Your task to perform on an android device: toggle data saver in the chrome app Image 0: 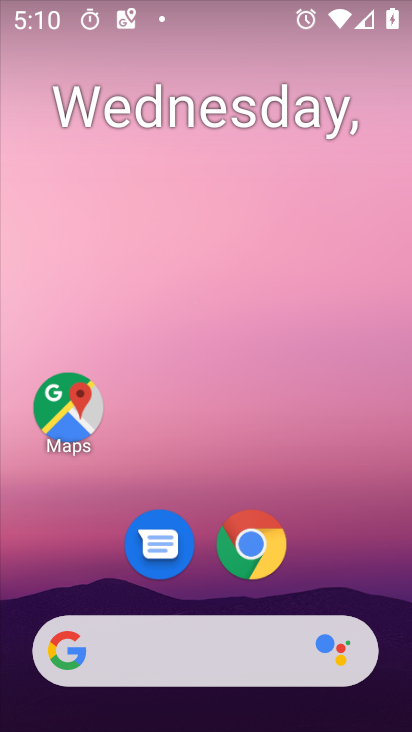
Step 0: click (267, 542)
Your task to perform on an android device: toggle data saver in the chrome app Image 1: 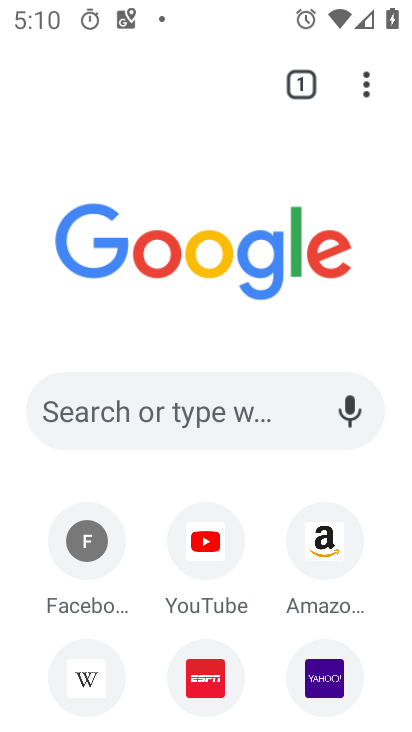
Step 1: click (362, 91)
Your task to perform on an android device: toggle data saver in the chrome app Image 2: 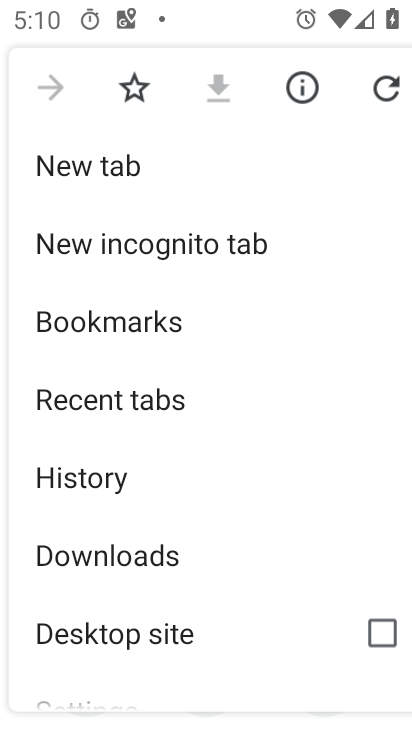
Step 2: drag from (181, 653) to (140, 300)
Your task to perform on an android device: toggle data saver in the chrome app Image 3: 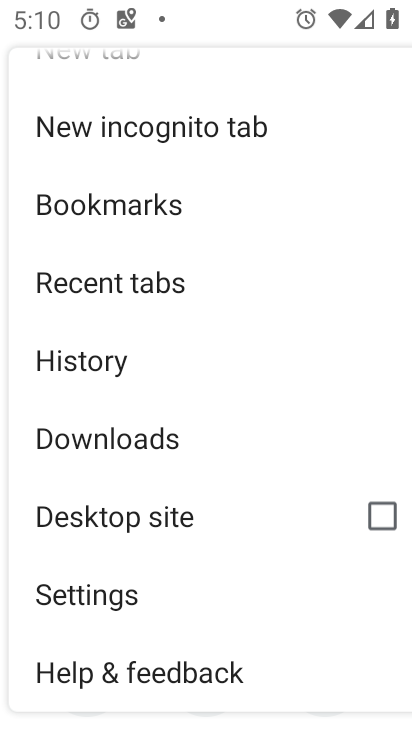
Step 3: click (122, 597)
Your task to perform on an android device: toggle data saver in the chrome app Image 4: 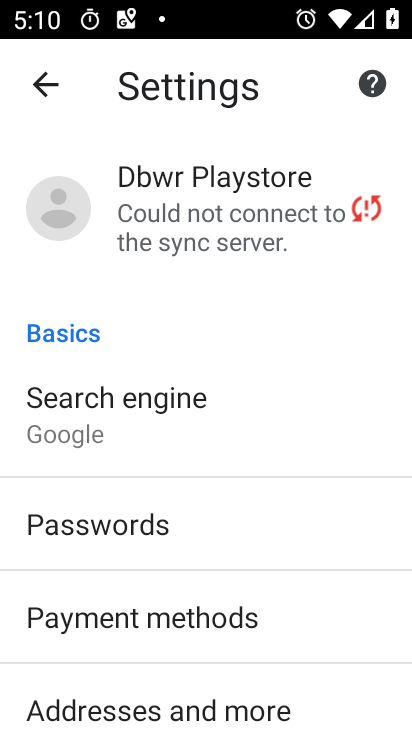
Step 4: drag from (193, 673) to (182, 230)
Your task to perform on an android device: toggle data saver in the chrome app Image 5: 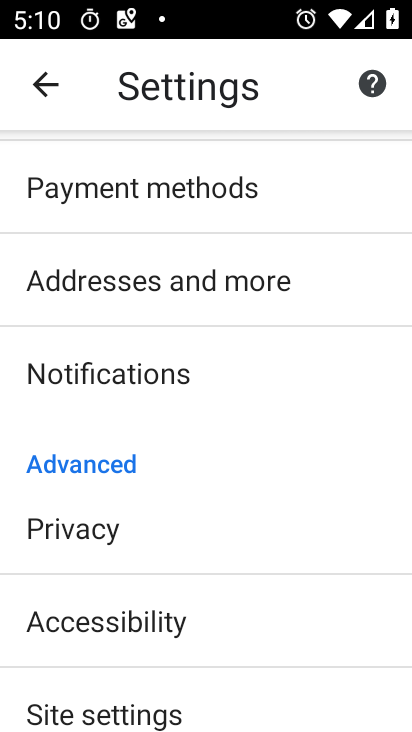
Step 5: drag from (110, 688) to (117, 360)
Your task to perform on an android device: toggle data saver in the chrome app Image 6: 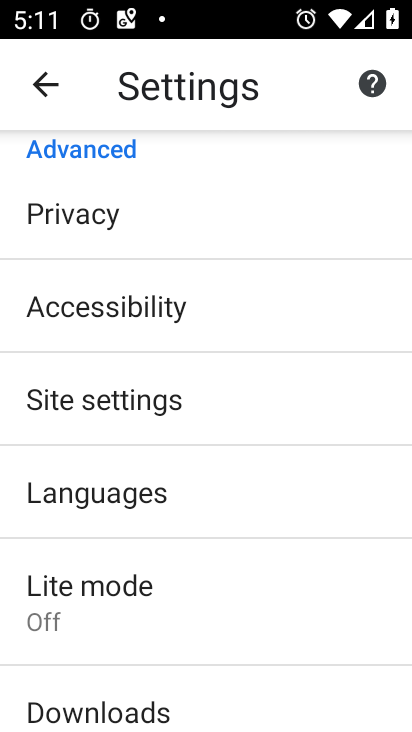
Step 6: click (88, 597)
Your task to perform on an android device: toggle data saver in the chrome app Image 7: 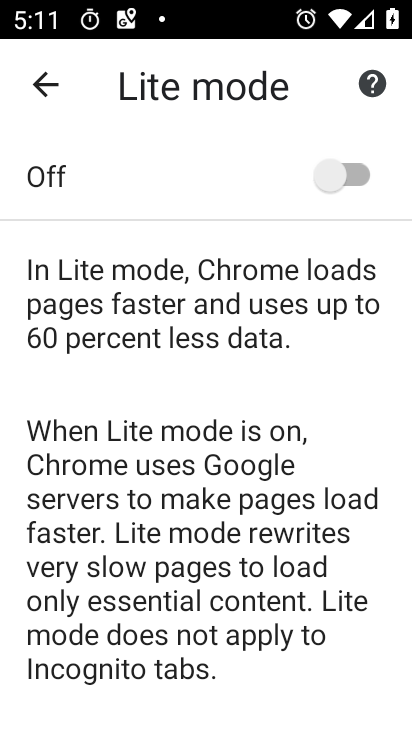
Step 7: click (351, 178)
Your task to perform on an android device: toggle data saver in the chrome app Image 8: 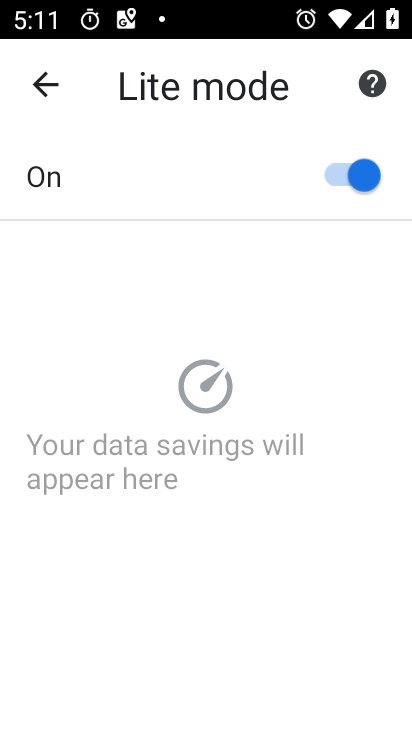
Step 8: task complete